Your task to perform on an android device: Go to Yahoo.com Image 0: 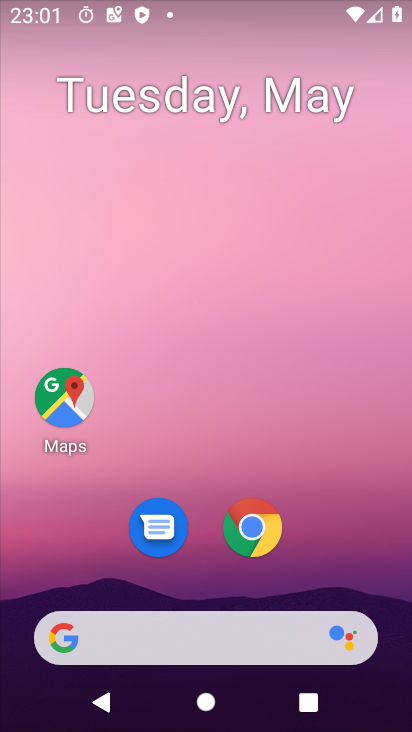
Step 0: drag from (203, 595) to (243, 24)
Your task to perform on an android device: Go to Yahoo.com Image 1: 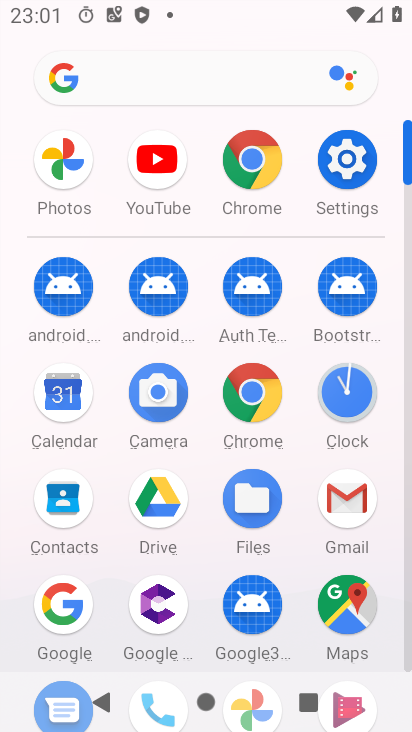
Step 1: click (197, 85)
Your task to perform on an android device: Go to Yahoo.com Image 2: 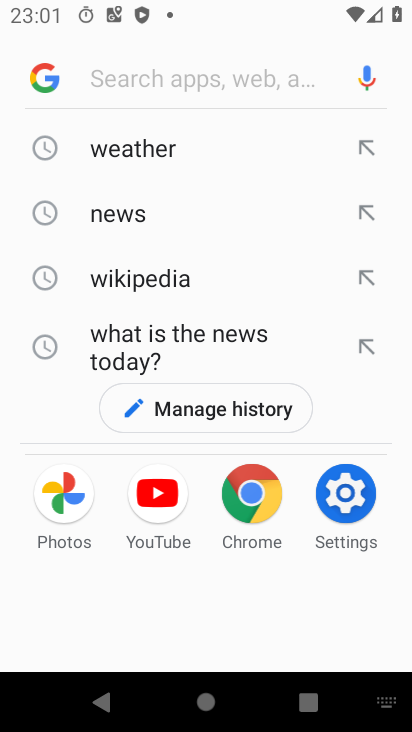
Step 2: type "Yahoo.com"
Your task to perform on an android device: Go to Yahoo.com Image 3: 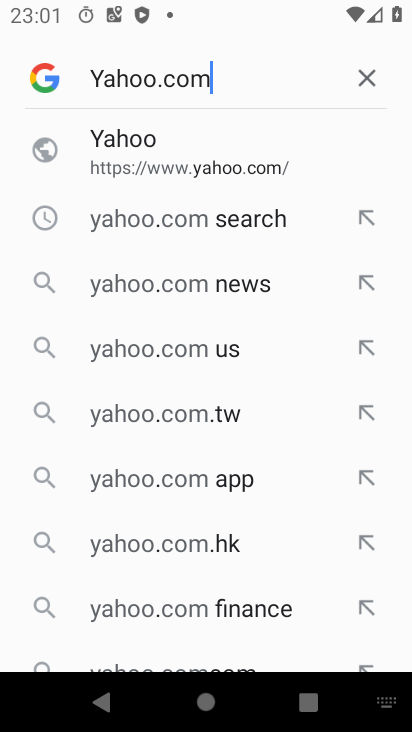
Step 3: click (181, 137)
Your task to perform on an android device: Go to Yahoo.com Image 4: 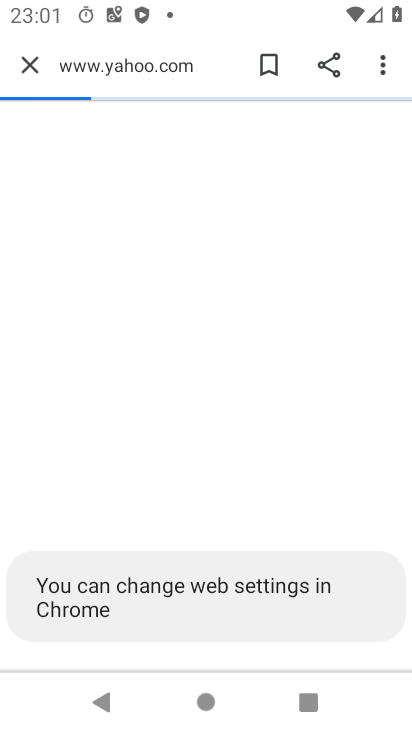
Step 4: task complete